Your task to perform on an android device: Open Amazon Image 0: 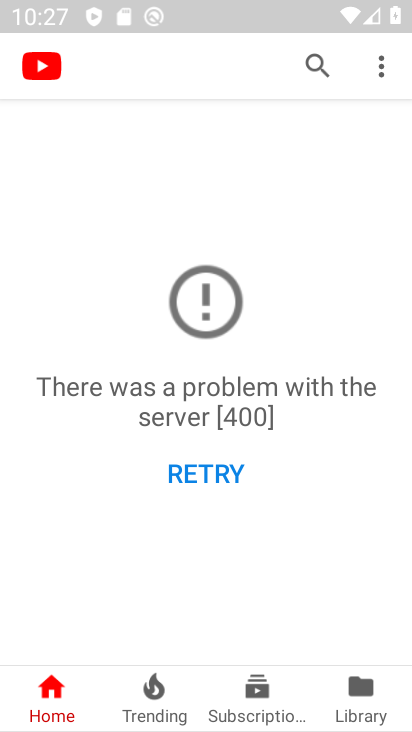
Step 0: press home button
Your task to perform on an android device: Open Amazon Image 1: 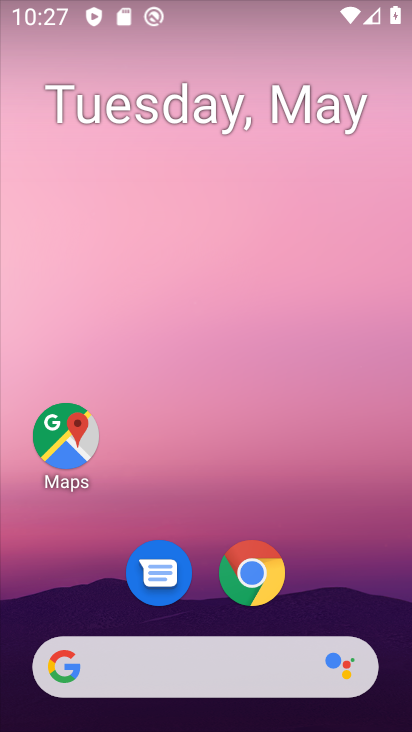
Step 1: drag from (305, 585) to (357, 71)
Your task to perform on an android device: Open Amazon Image 2: 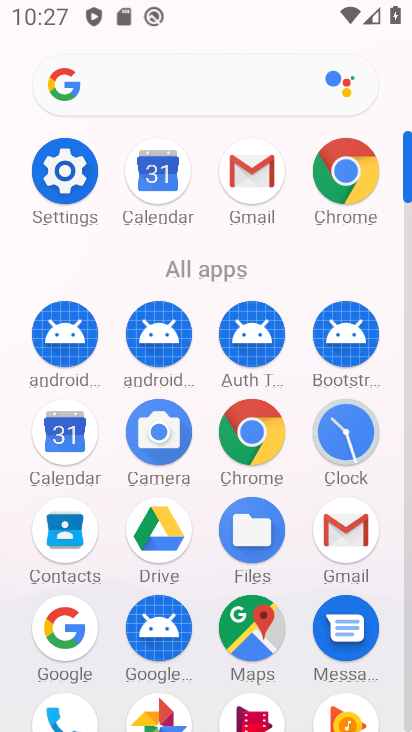
Step 2: drag from (299, 296) to (335, 51)
Your task to perform on an android device: Open Amazon Image 3: 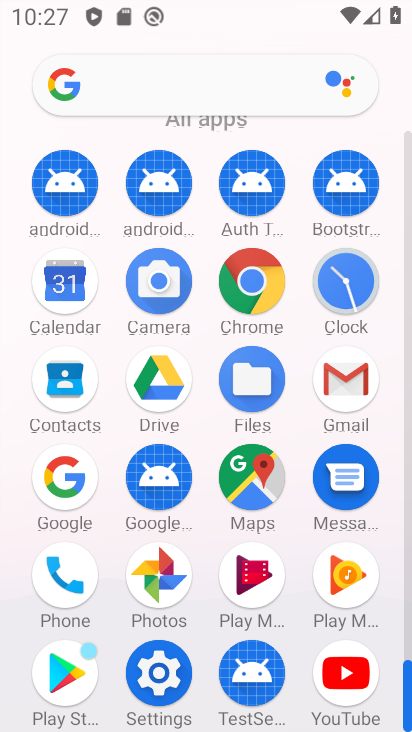
Step 3: click (251, 266)
Your task to perform on an android device: Open Amazon Image 4: 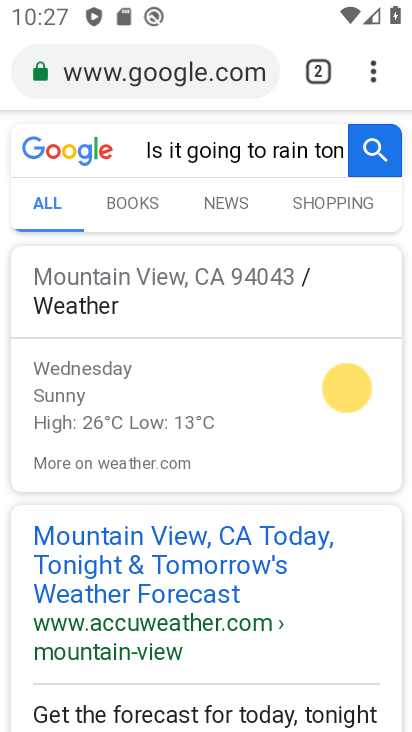
Step 4: drag from (343, 606) to (363, 335)
Your task to perform on an android device: Open Amazon Image 5: 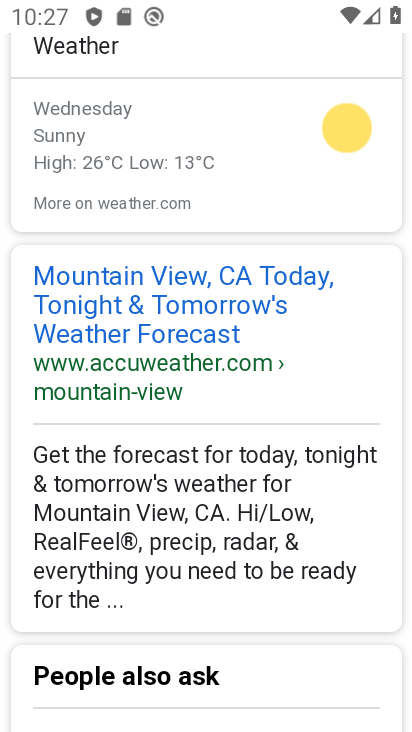
Step 5: drag from (352, 291) to (274, 640)
Your task to perform on an android device: Open Amazon Image 6: 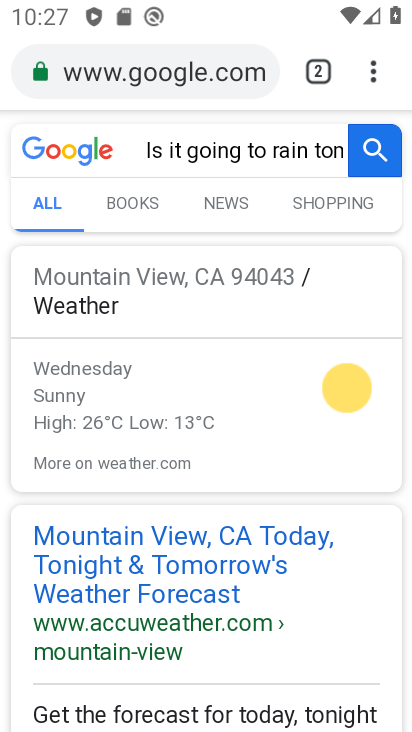
Step 6: click (110, 75)
Your task to perform on an android device: Open Amazon Image 7: 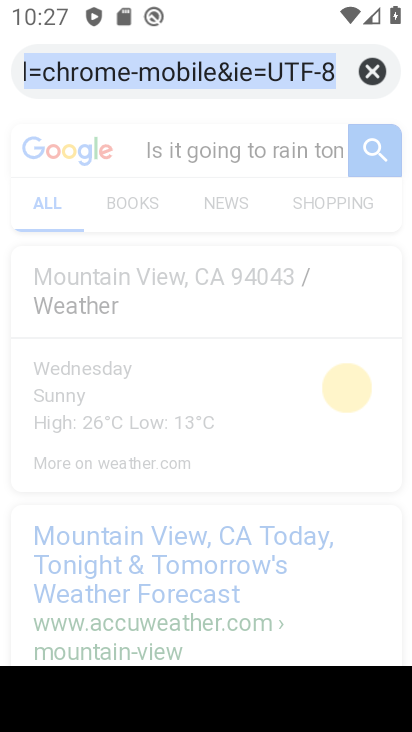
Step 7: click (369, 57)
Your task to perform on an android device: Open Amazon Image 8: 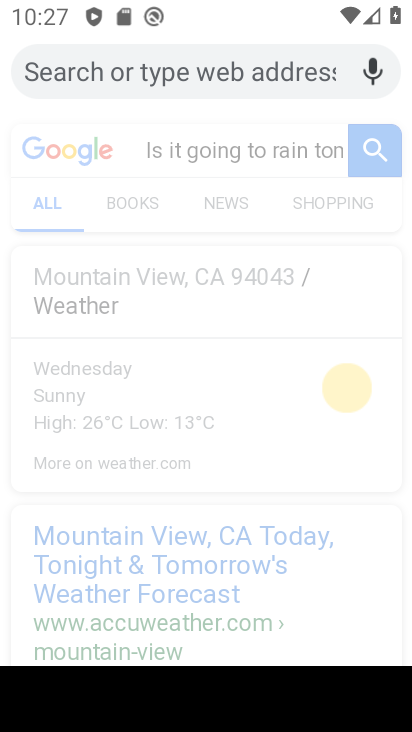
Step 8: type " Amazon"
Your task to perform on an android device: Open Amazon Image 9: 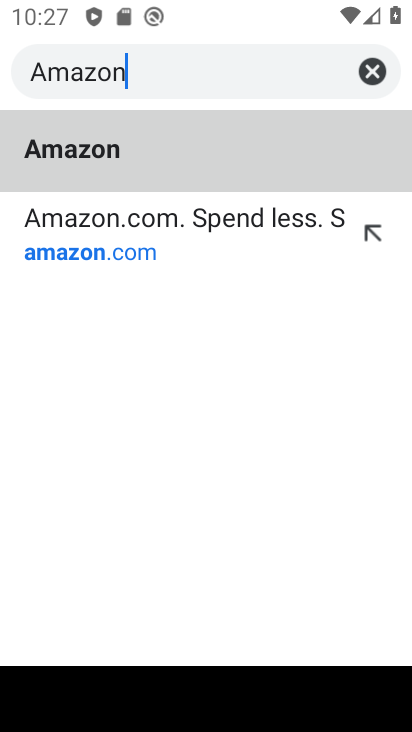
Step 9: click (66, 141)
Your task to perform on an android device: Open Amazon Image 10: 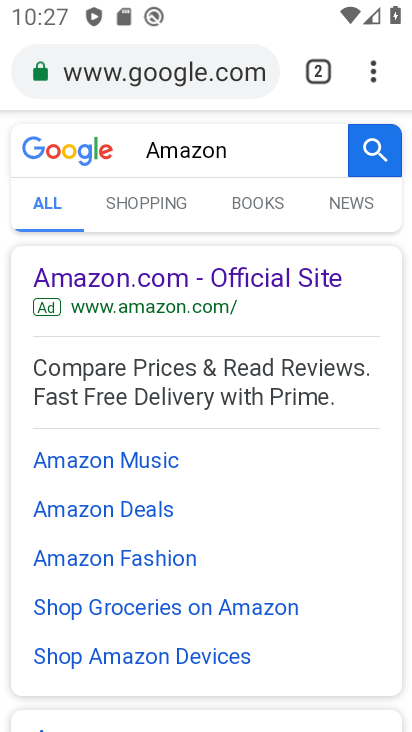
Step 10: click (112, 266)
Your task to perform on an android device: Open Amazon Image 11: 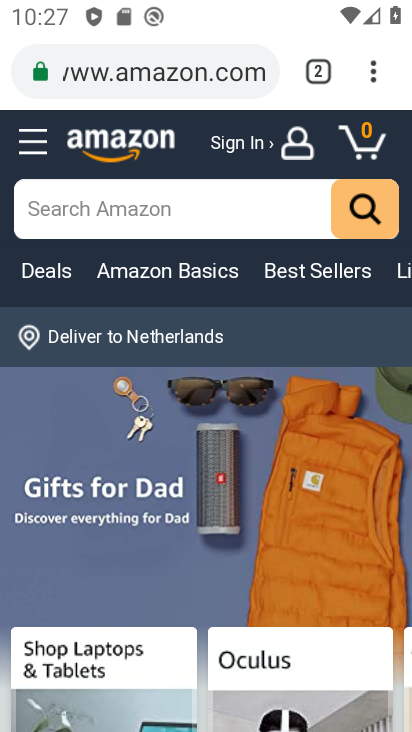
Step 11: task complete